Your task to perform on an android device: Go to accessibility settings Image 0: 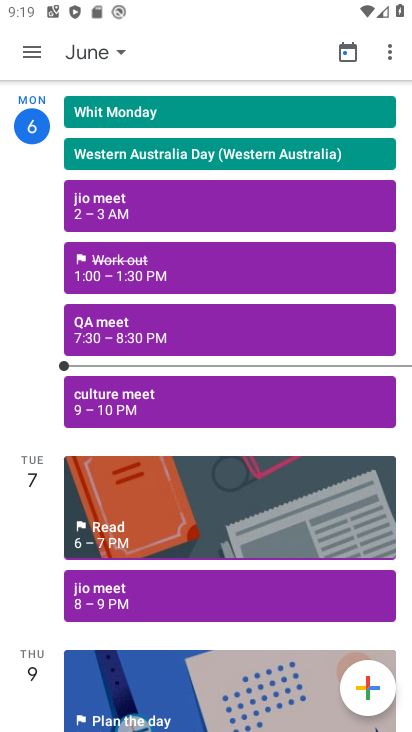
Step 0: press back button
Your task to perform on an android device: Go to accessibility settings Image 1: 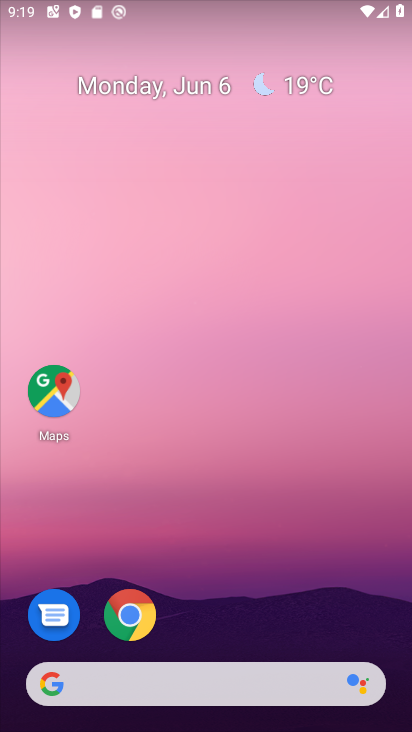
Step 1: drag from (201, 640) to (191, 189)
Your task to perform on an android device: Go to accessibility settings Image 2: 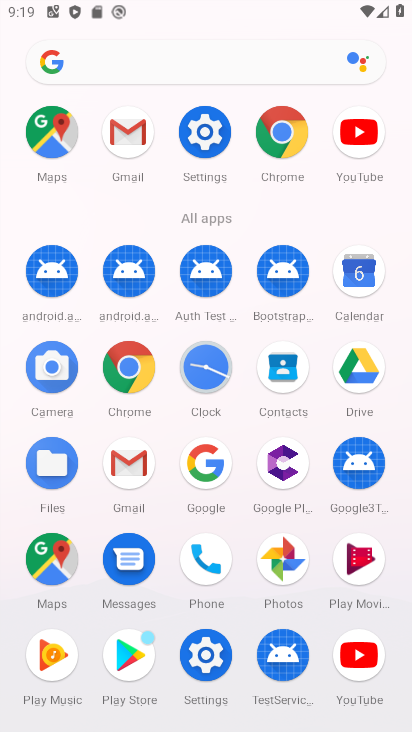
Step 2: click (200, 139)
Your task to perform on an android device: Go to accessibility settings Image 3: 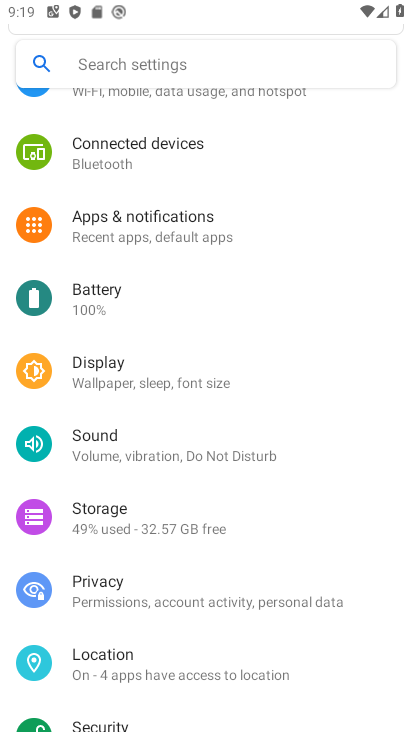
Step 3: drag from (215, 553) to (216, 387)
Your task to perform on an android device: Go to accessibility settings Image 4: 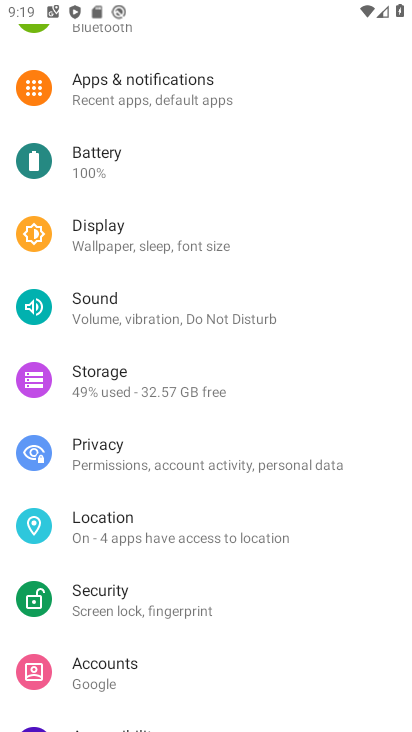
Step 4: drag from (190, 666) to (213, 340)
Your task to perform on an android device: Go to accessibility settings Image 5: 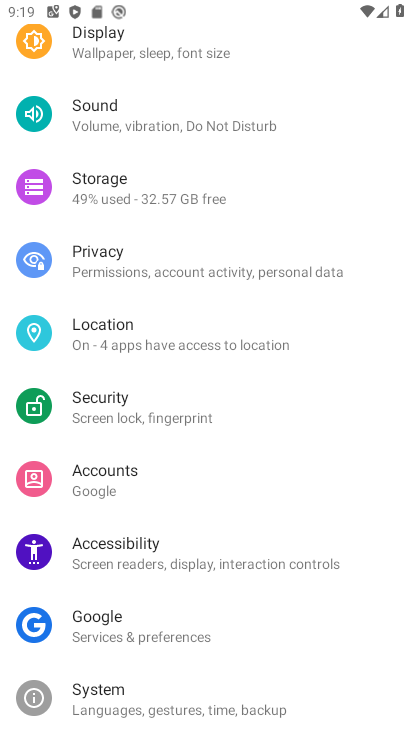
Step 5: click (107, 541)
Your task to perform on an android device: Go to accessibility settings Image 6: 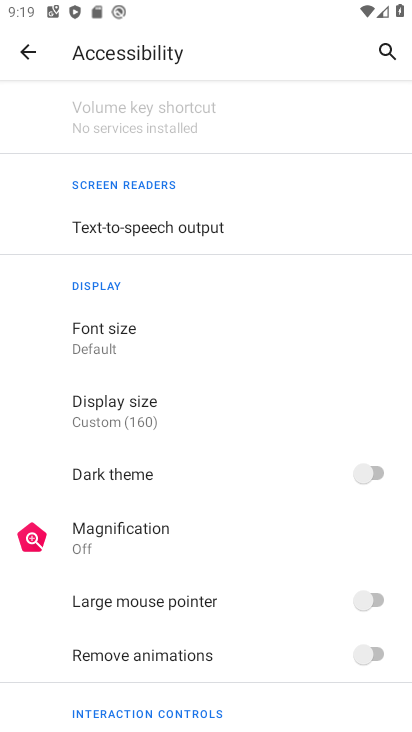
Step 6: task complete